Your task to perform on an android device: find snoozed emails in the gmail app Image 0: 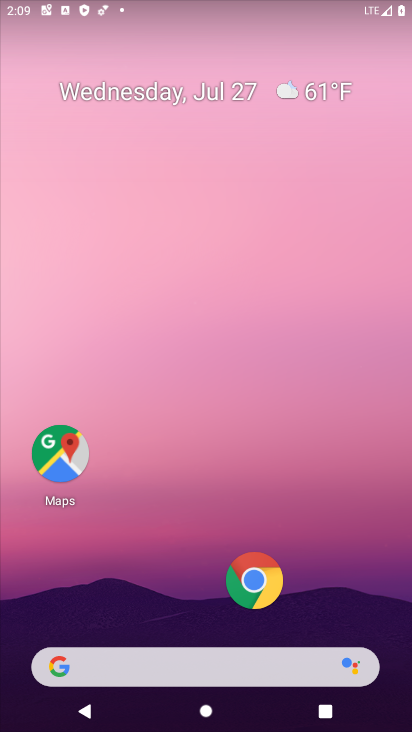
Step 0: drag from (201, 610) to (158, 128)
Your task to perform on an android device: find snoozed emails in the gmail app Image 1: 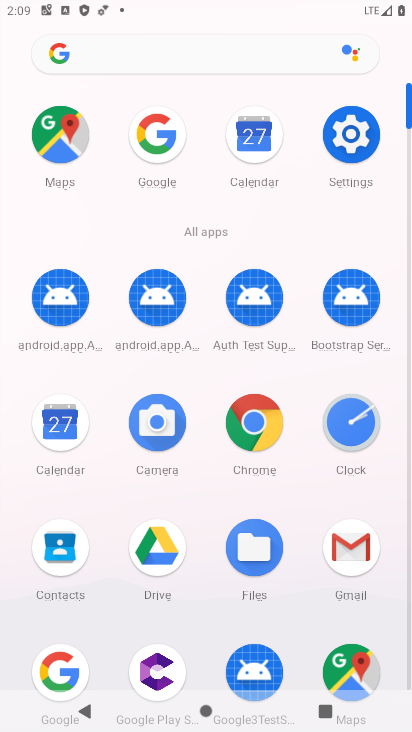
Step 1: click (342, 568)
Your task to perform on an android device: find snoozed emails in the gmail app Image 2: 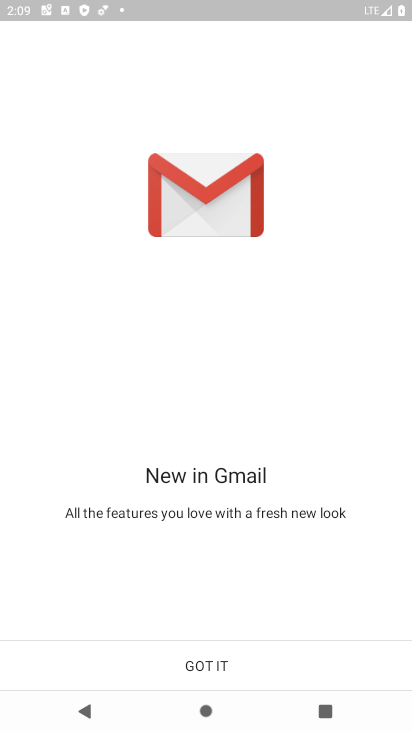
Step 2: click (259, 671)
Your task to perform on an android device: find snoozed emails in the gmail app Image 3: 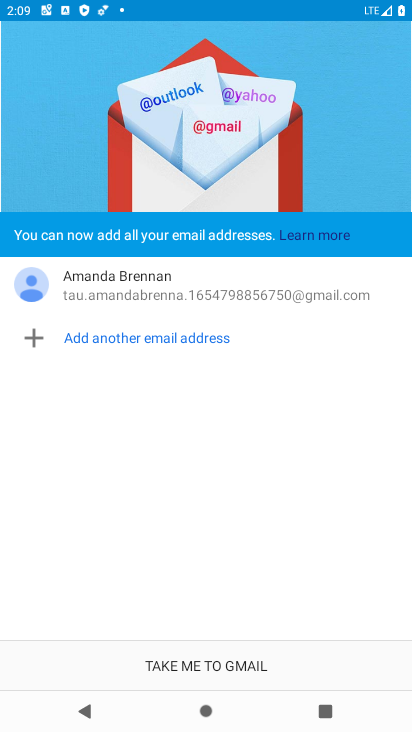
Step 3: click (259, 671)
Your task to perform on an android device: find snoozed emails in the gmail app Image 4: 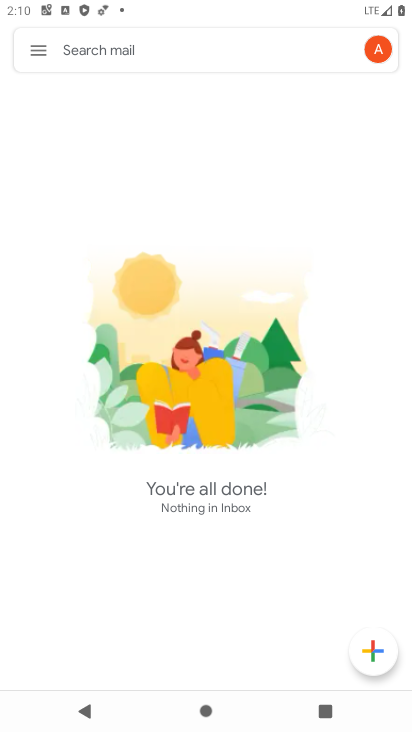
Step 4: click (33, 62)
Your task to perform on an android device: find snoozed emails in the gmail app Image 5: 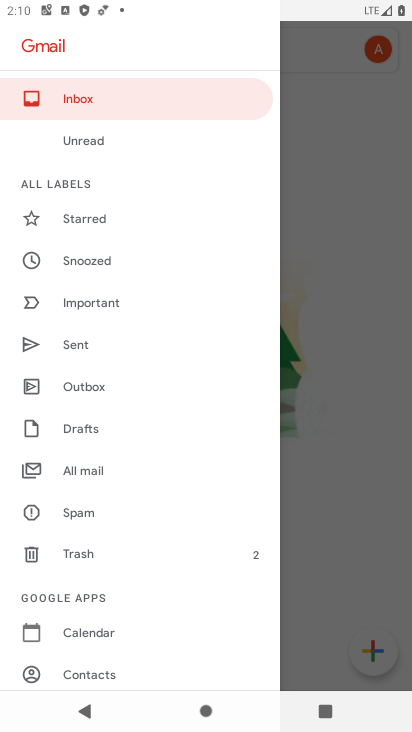
Step 5: click (124, 265)
Your task to perform on an android device: find snoozed emails in the gmail app Image 6: 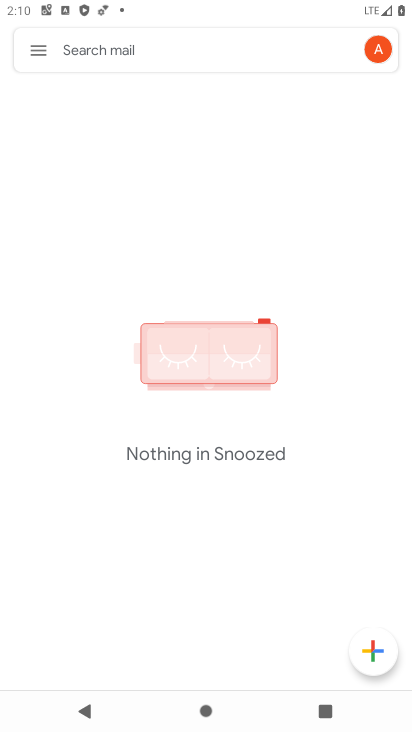
Step 6: task complete